Your task to perform on an android device: turn notification dots on Image 0: 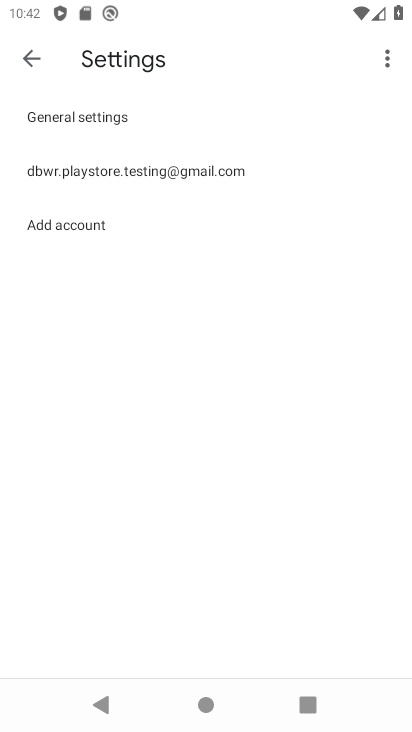
Step 0: press home button
Your task to perform on an android device: turn notification dots on Image 1: 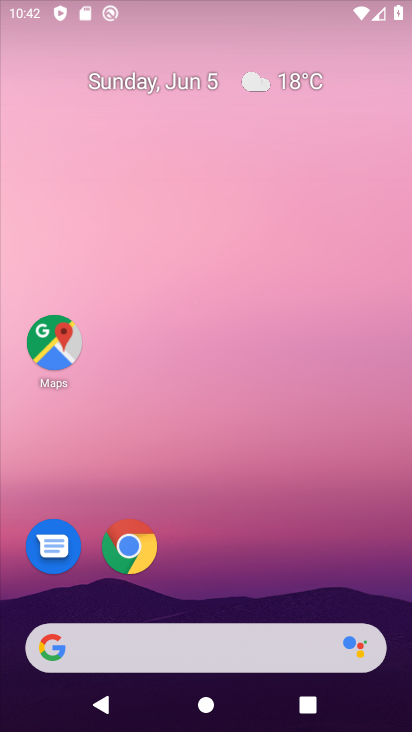
Step 1: drag from (145, 661) to (151, 157)
Your task to perform on an android device: turn notification dots on Image 2: 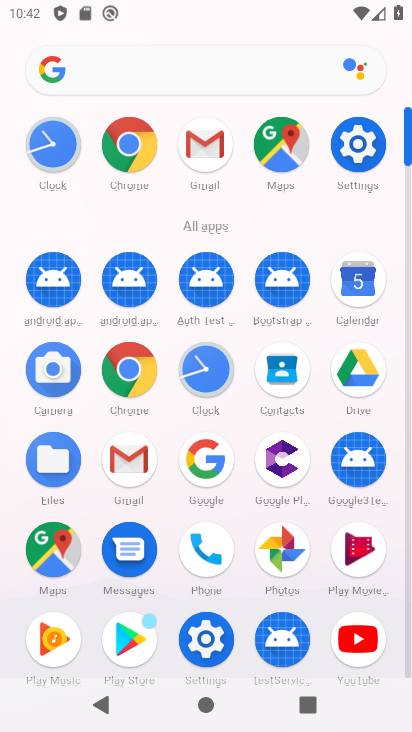
Step 2: click (354, 161)
Your task to perform on an android device: turn notification dots on Image 3: 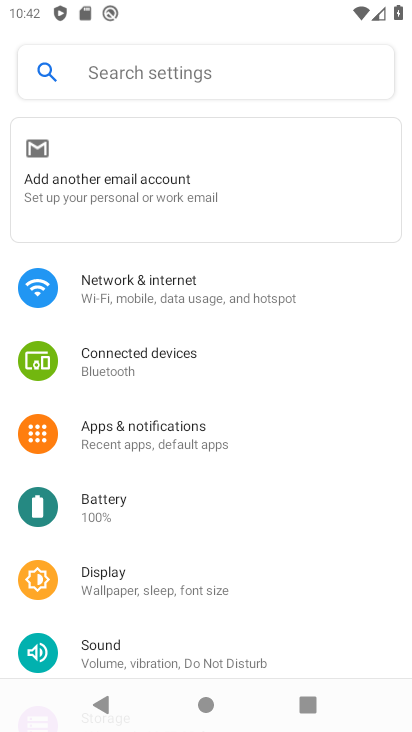
Step 3: click (167, 439)
Your task to perform on an android device: turn notification dots on Image 4: 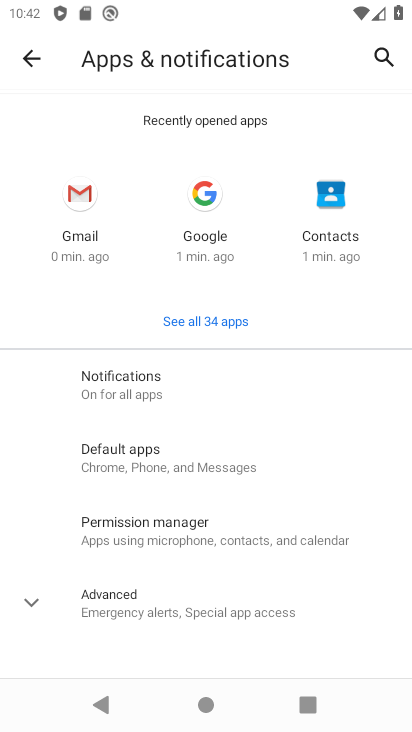
Step 4: click (190, 387)
Your task to perform on an android device: turn notification dots on Image 5: 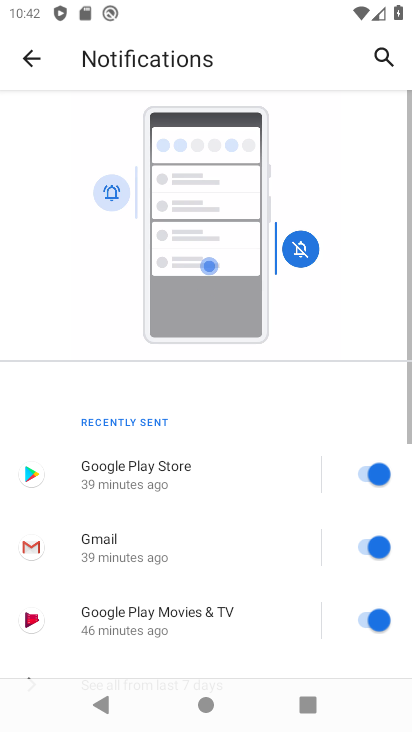
Step 5: drag from (182, 593) to (207, 278)
Your task to perform on an android device: turn notification dots on Image 6: 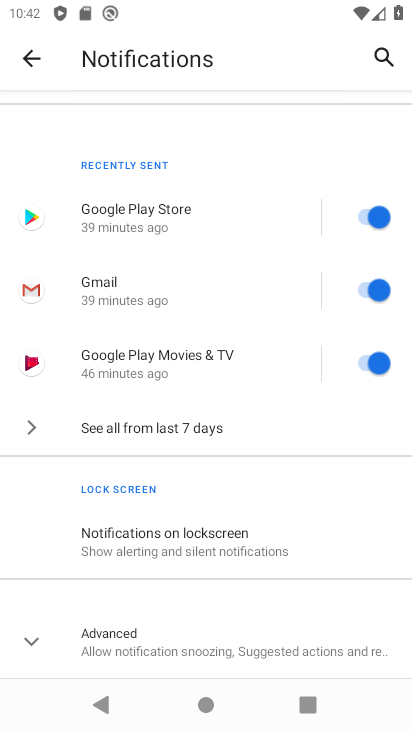
Step 6: click (143, 640)
Your task to perform on an android device: turn notification dots on Image 7: 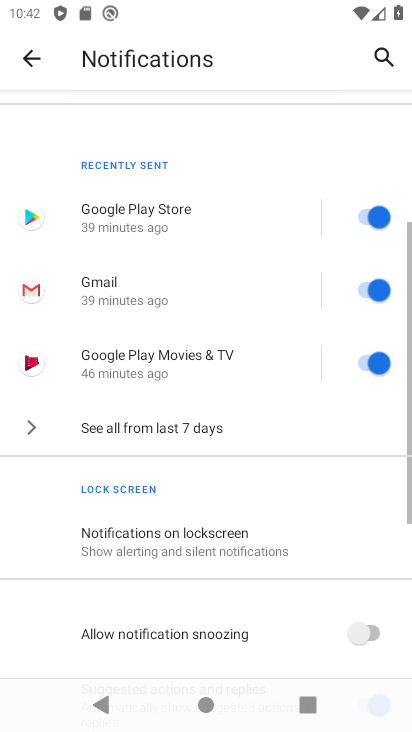
Step 7: task complete